Your task to perform on an android device: What is the news today? Image 0: 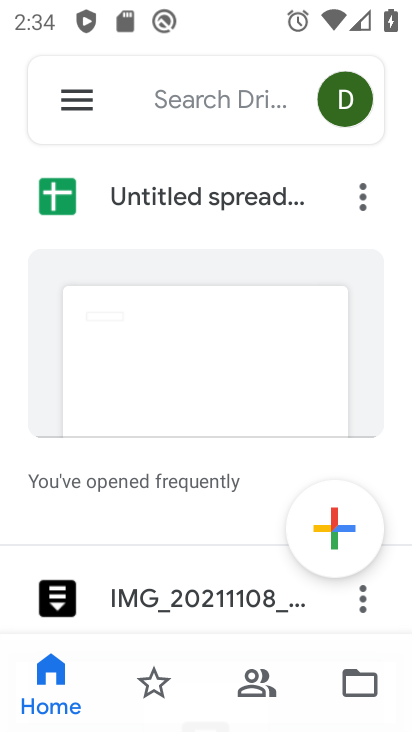
Step 0: click (198, 651)
Your task to perform on an android device: What is the news today? Image 1: 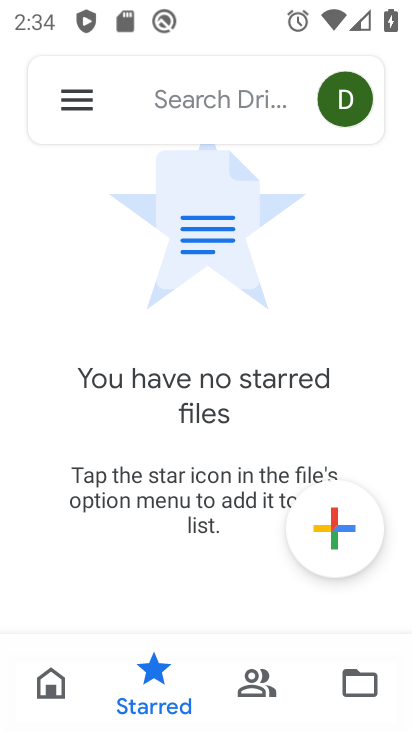
Step 1: press home button
Your task to perform on an android device: What is the news today? Image 2: 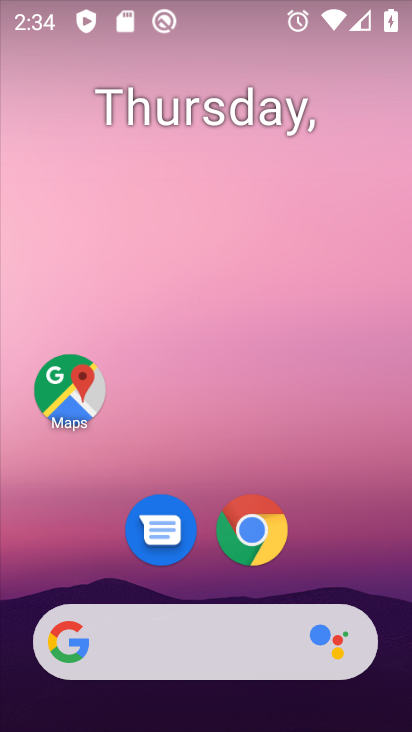
Step 2: type "news today"
Your task to perform on an android device: What is the news today? Image 3: 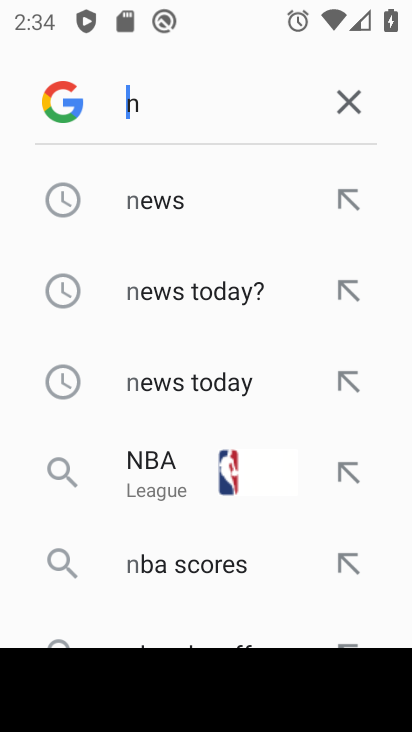
Step 3: click (238, 296)
Your task to perform on an android device: What is the news today? Image 4: 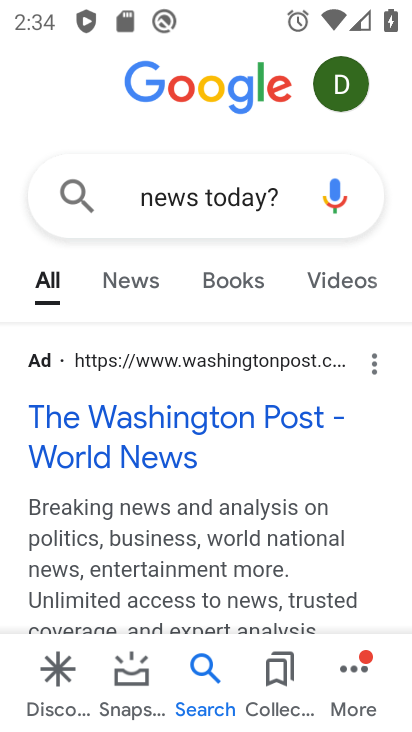
Step 4: task complete